Your task to perform on an android device: Open battery settings Image 0: 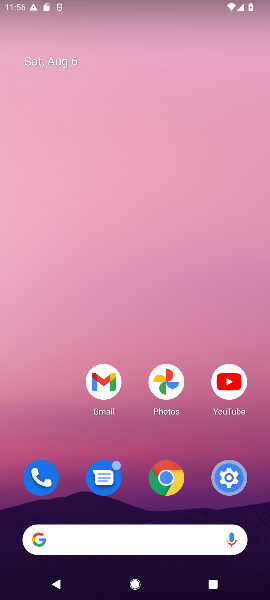
Step 0: drag from (150, 502) to (139, 74)
Your task to perform on an android device: Open battery settings Image 1: 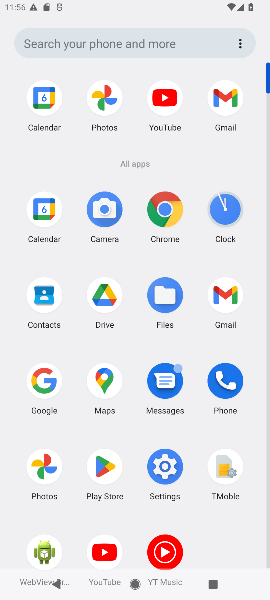
Step 1: click (164, 469)
Your task to perform on an android device: Open battery settings Image 2: 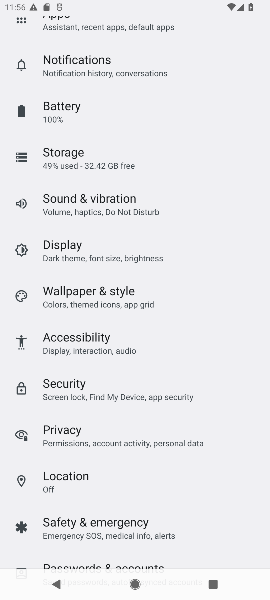
Step 2: click (77, 117)
Your task to perform on an android device: Open battery settings Image 3: 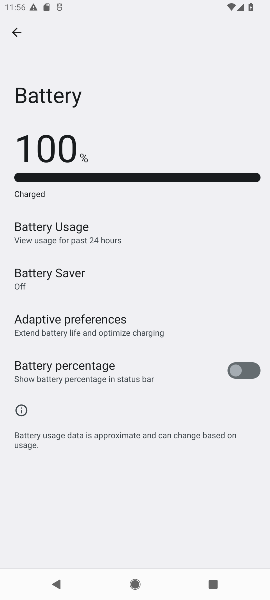
Step 3: task complete